Your task to perform on an android device: turn off sleep mode Image 0: 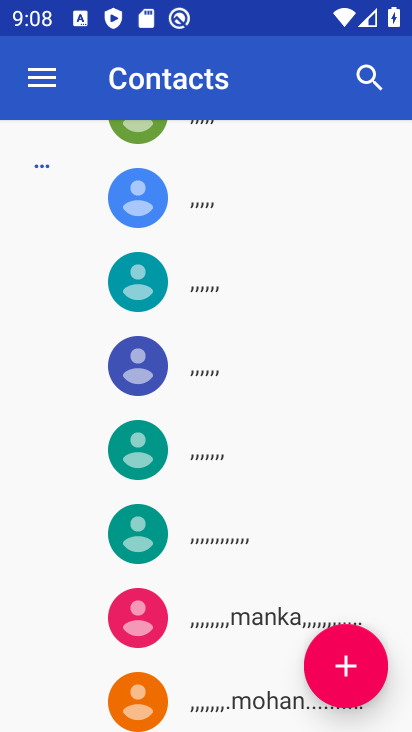
Step 0: press home button
Your task to perform on an android device: turn off sleep mode Image 1: 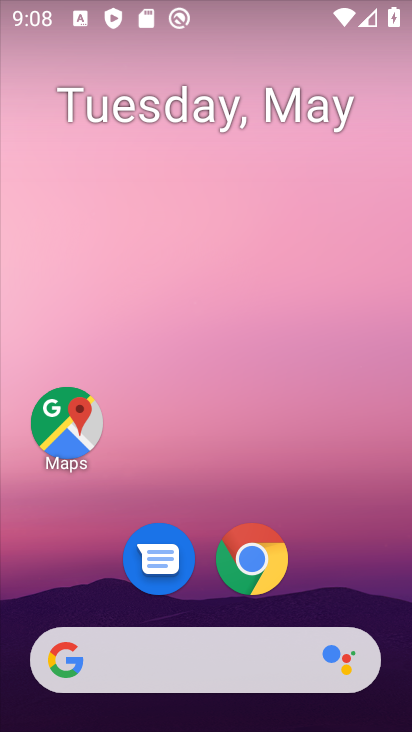
Step 1: drag from (186, 664) to (264, 54)
Your task to perform on an android device: turn off sleep mode Image 2: 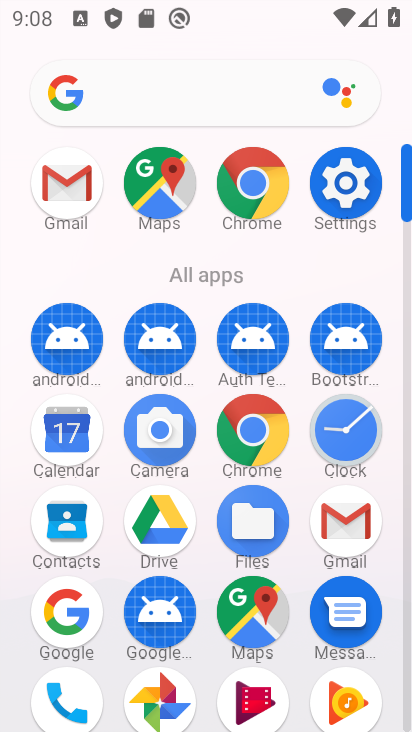
Step 2: click (360, 214)
Your task to perform on an android device: turn off sleep mode Image 3: 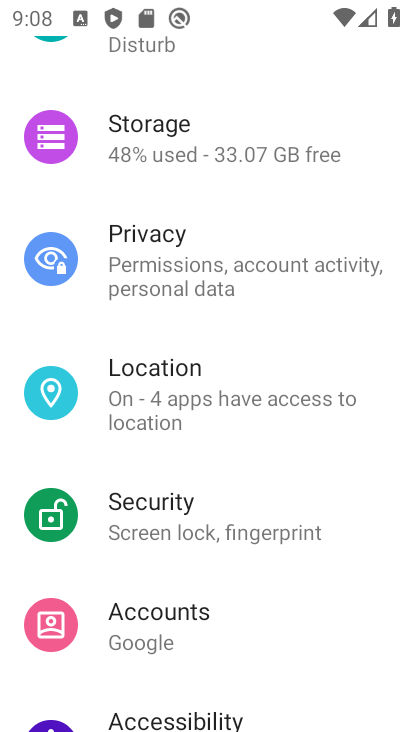
Step 3: drag from (218, 193) to (240, 617)
Your task to perform on an android device: turn off sleep mode Image 4: 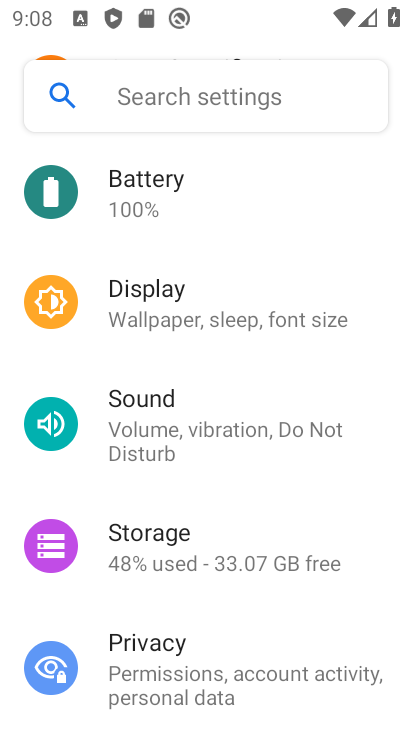
Step 4: click (186, 289)
Your task to perform on an android device: turn off sleep mode Image 5: 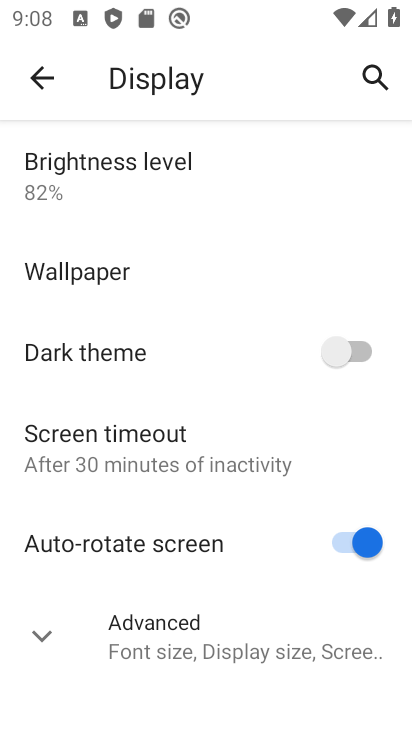
Step 5: click (221, 650)
Your task to perform on an android device: turn off sleep mode Image 6: 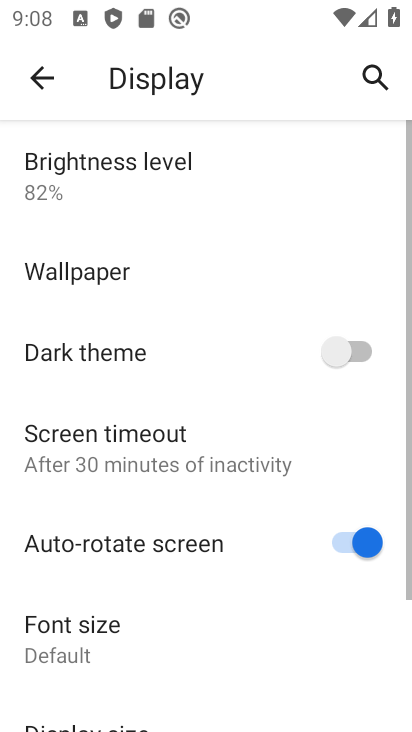
Step 6: task complete